Your task to perform on an android device: Search for Italian restaurants on Maps Image 0: 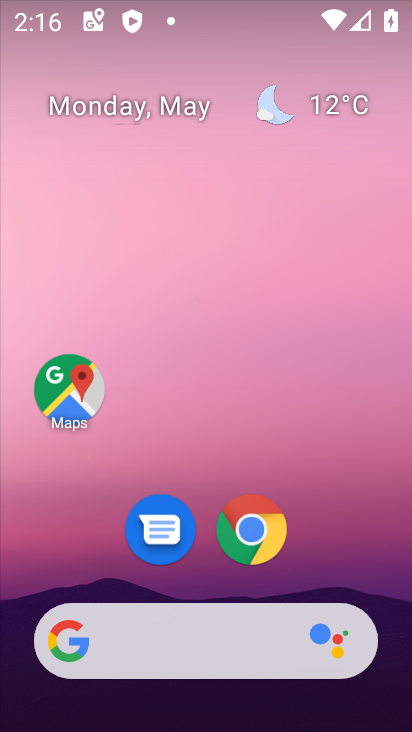
Step 0: click (70, 388)
Your task to perform on an android device: Search for Italian restaurants on Maps Image 1: 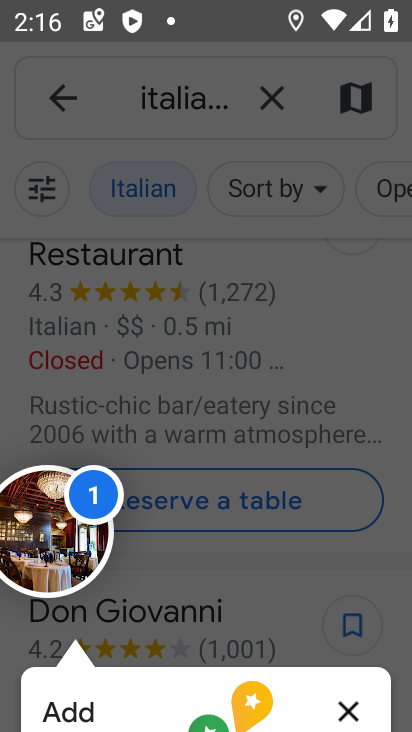
Step 1: click (346, 709)
Your task to perform on an android device: Search for Italian restaurants on Maps Image 2: 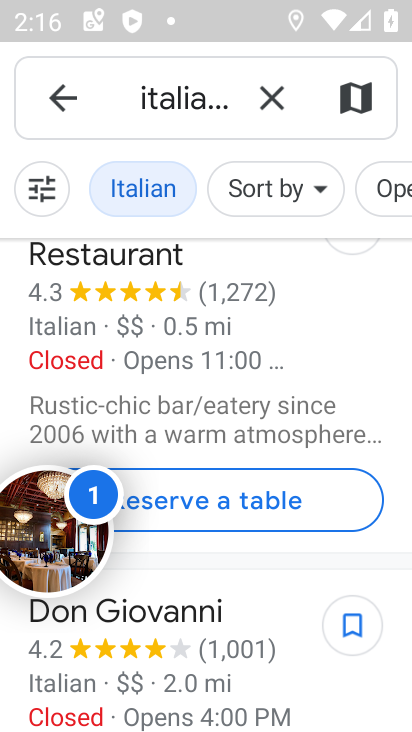
Step 2: drag from (42, 522) to (133, 695)
Your task to perform on an android device: Search for Italian restaurants on Maps Image 3: 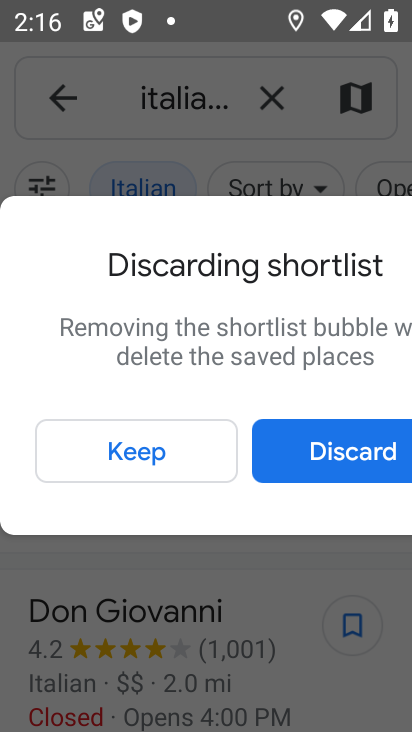
Step 3: click (327, 462)
Your task to perform on an android device: Search for Italian restaurants on Maps Image 4: 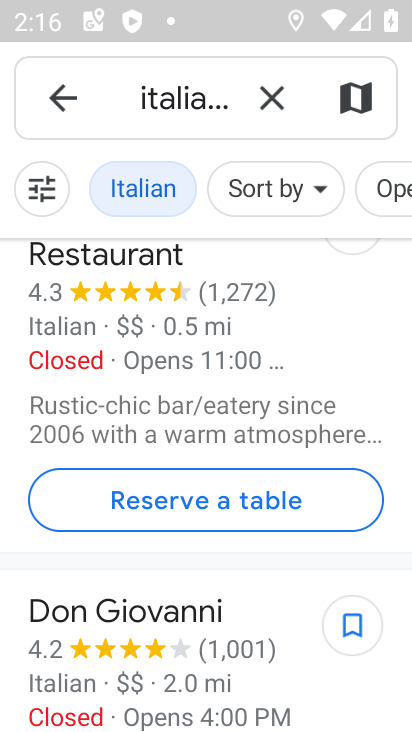
Step 4: task complete